Your task to perform on an android device: turn pop-ups on in chrome Image 0: 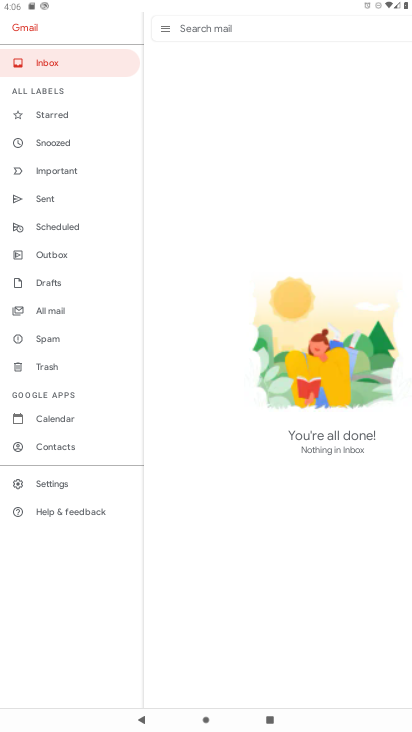
Step 0: press home button
Your task to perform on an android device: turn pop-ups on in chrome Image 1: 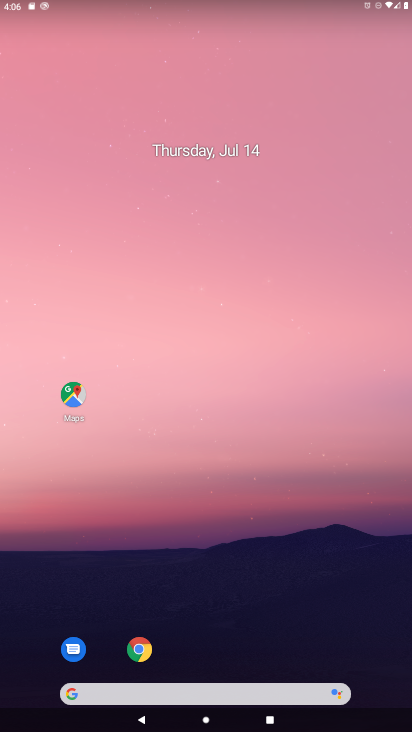
Step 1: drag from (226, 622) to (256, 6)
Your task to perform on an android device: turn pop-ups on in chrome Image 2: 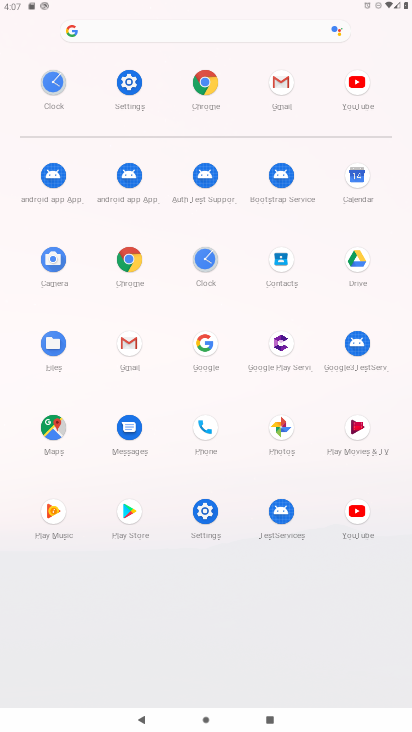
Step 2: click (134, 252)
Your task to perform on an android device: turn pop-ups on in chrome Image 3: 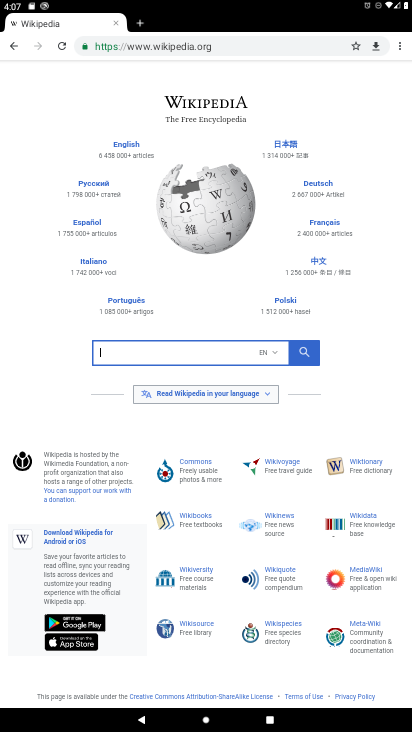
Step 3: click (396, 41)
Your task to perform on an android device: turn pop-ups on in chrome Image 4: 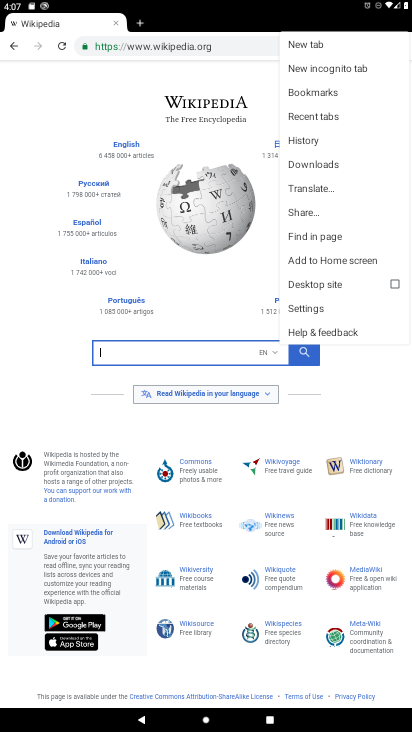
Step 4: click (311, 309)
Your task to perform on an android device: turn pop-ups on in chrome Image 5: 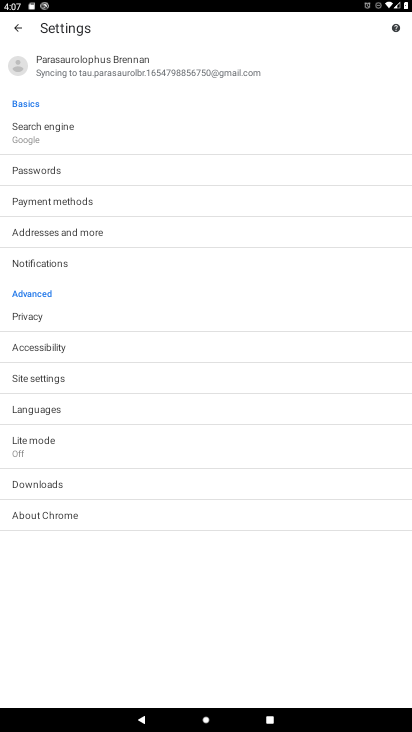
Step 5: click (55, 381)
Your task to perform on an android device: turn pop-ups on in chrome Image 6: 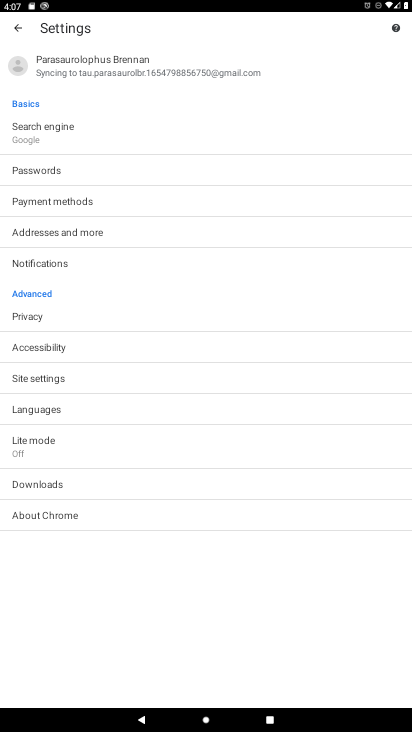
Step 6: click (84, 379)
Your task to perform on an android device: turn pop-ups on in chrome Image 7: 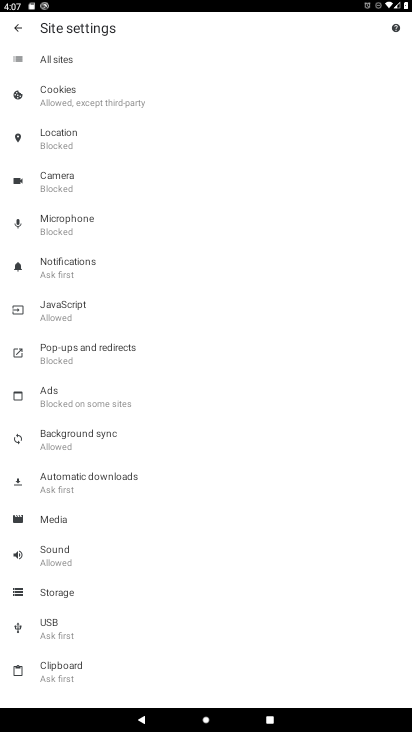
Step 7: click (89, 344)
Your task to perform on an android device: turn pop-ups on in chrome Image 8: 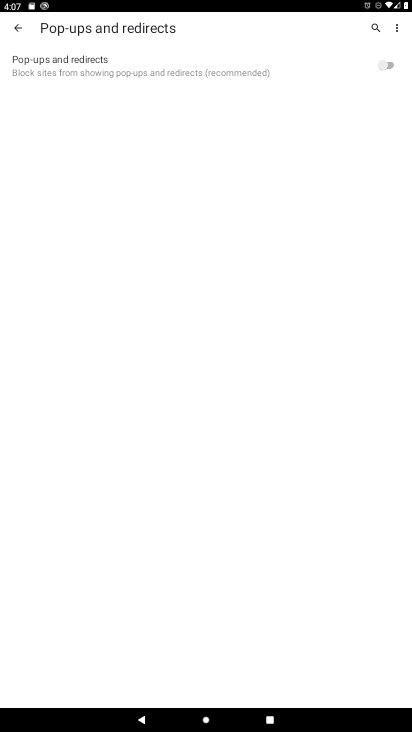
Step 8: click (382, 60)
Your task to perform on an android device: turn pop-ups on in chrome Image 9: 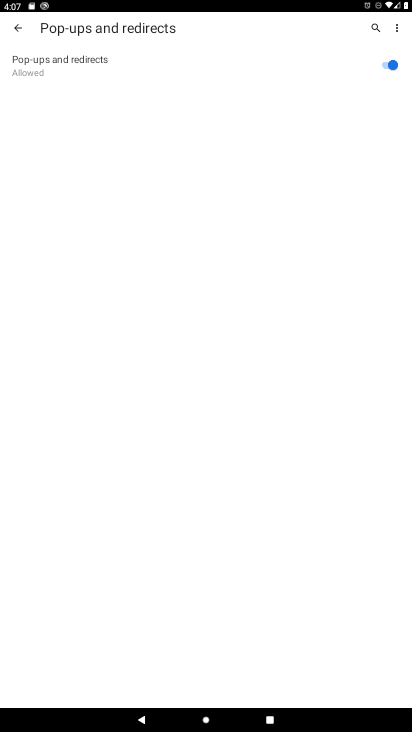
Step 9: task complete